Your task to perform on an android device: Add "sony triple a" to the cart on walmart.com Image 0: 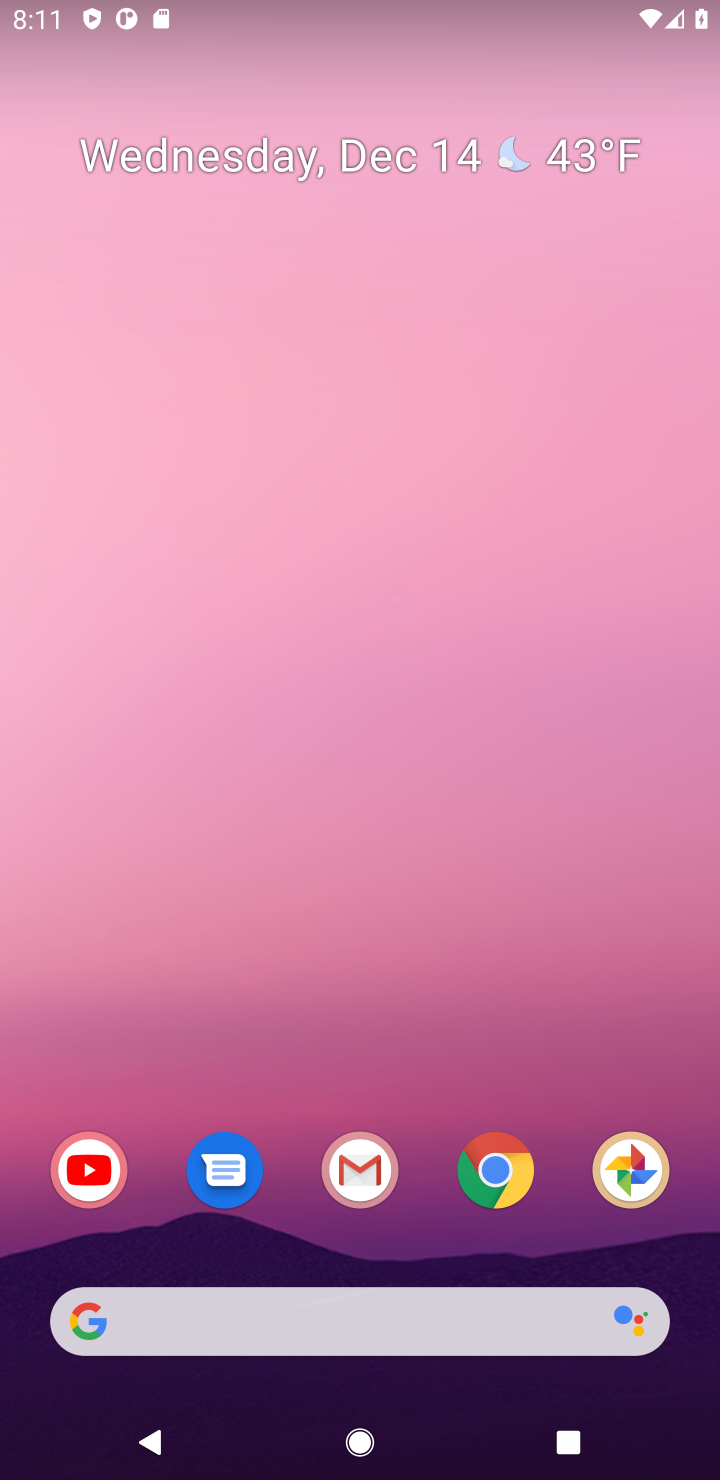
Step 0: click (505, 1178)
Your task to perform on an android device: Add "sony triple a" to the cart on walmart.com Image 1: 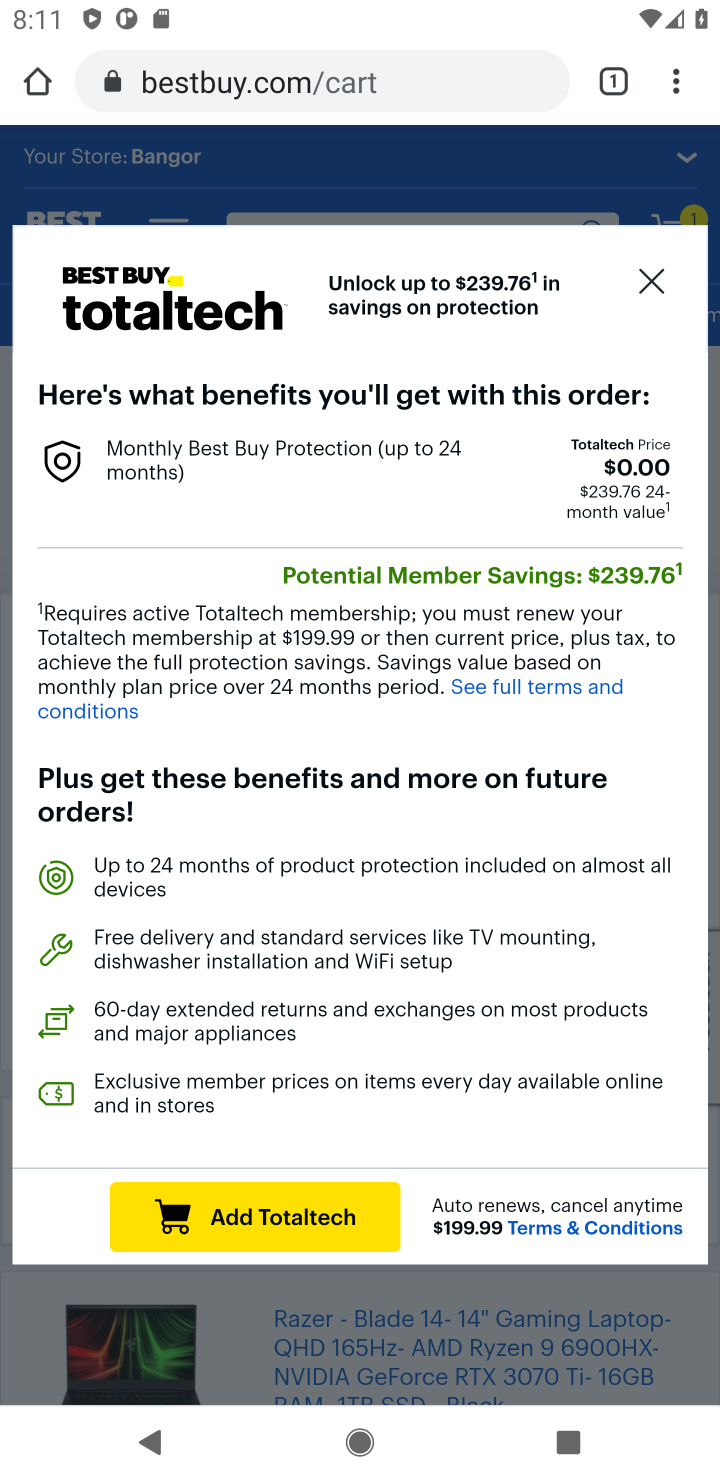
Step 1: click (322, 74)
Your task to perform on an android device: Add "sony triple a" to the cart on walmart.com Image 2: 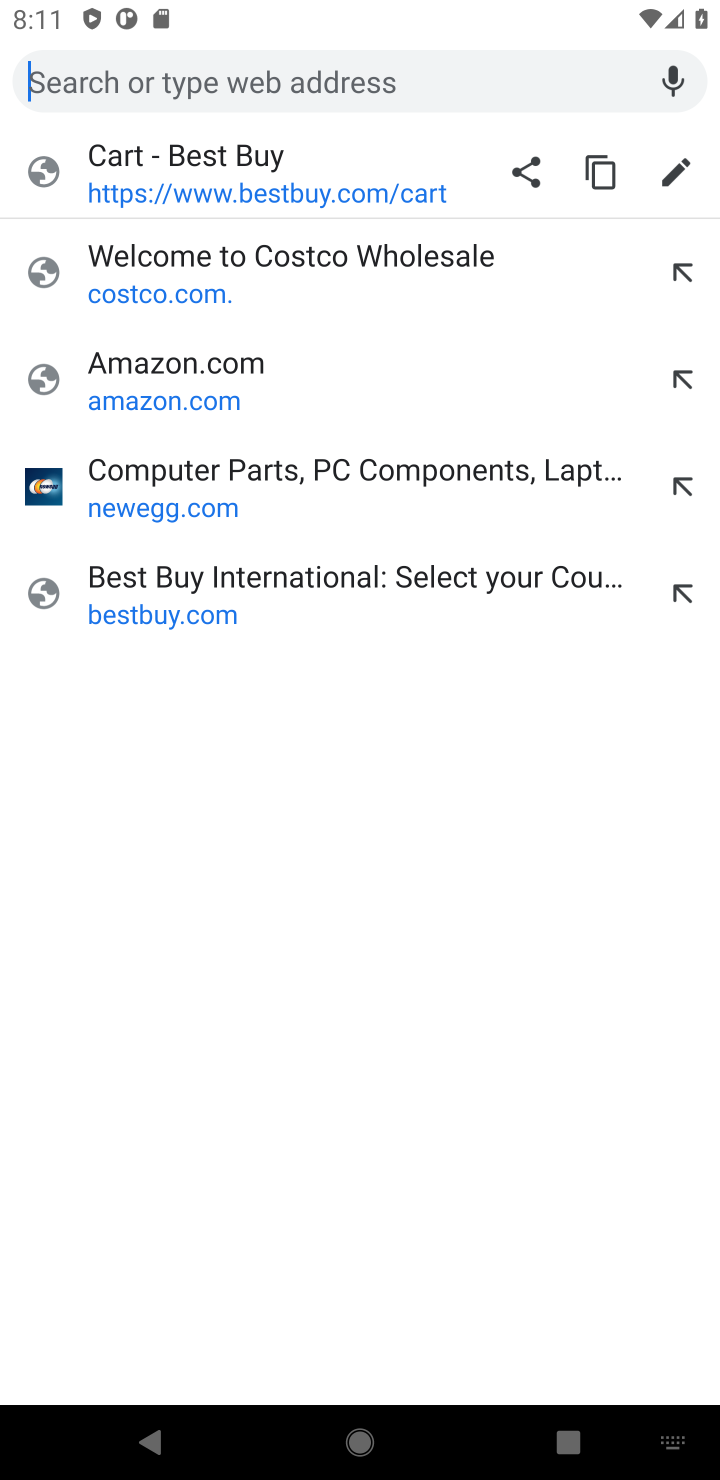
Step 2: type "WALMART"
Your task to perform on an android device: Add "sony triple a" to the cart on walmart.com Image 3: 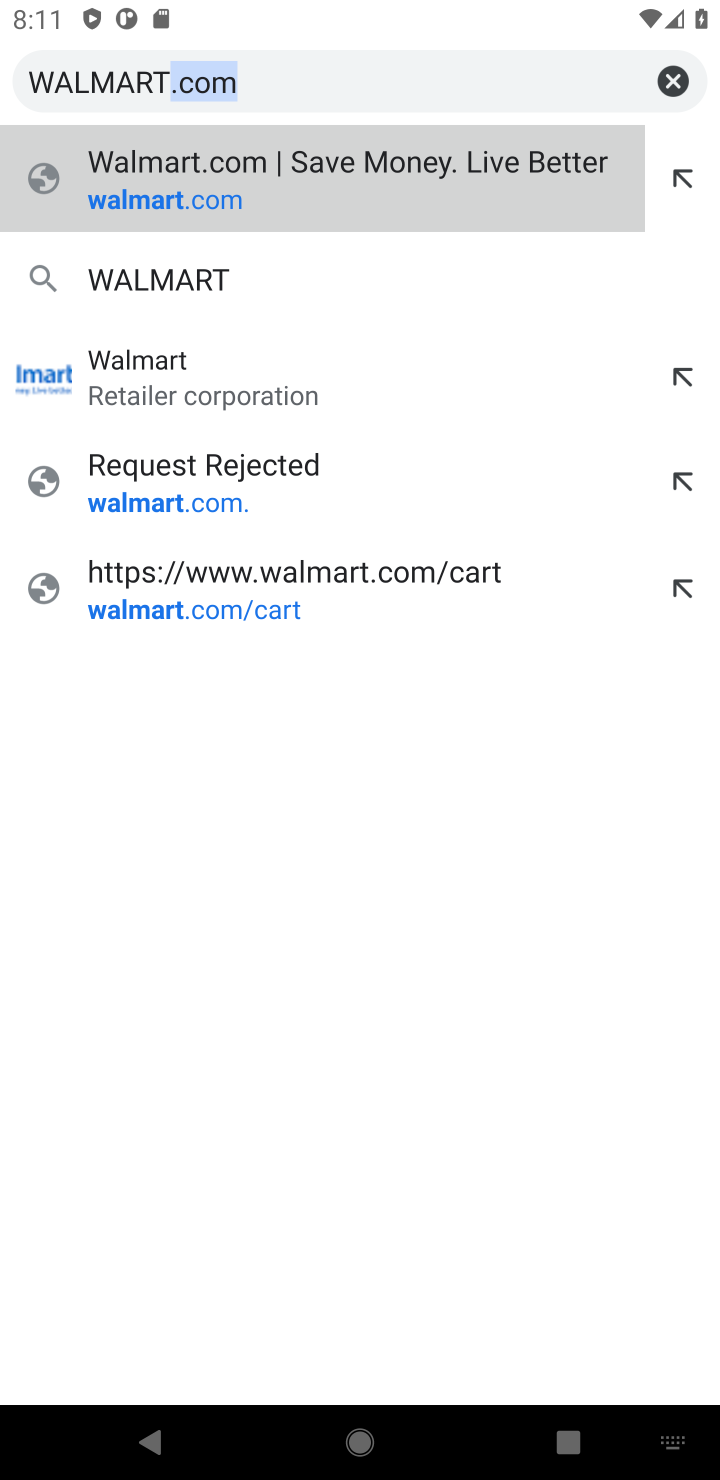
Step 3: click (218, 189)
Your task to perform on an android device: Add "sony triple a" to the cart on walmart.com Image 4: 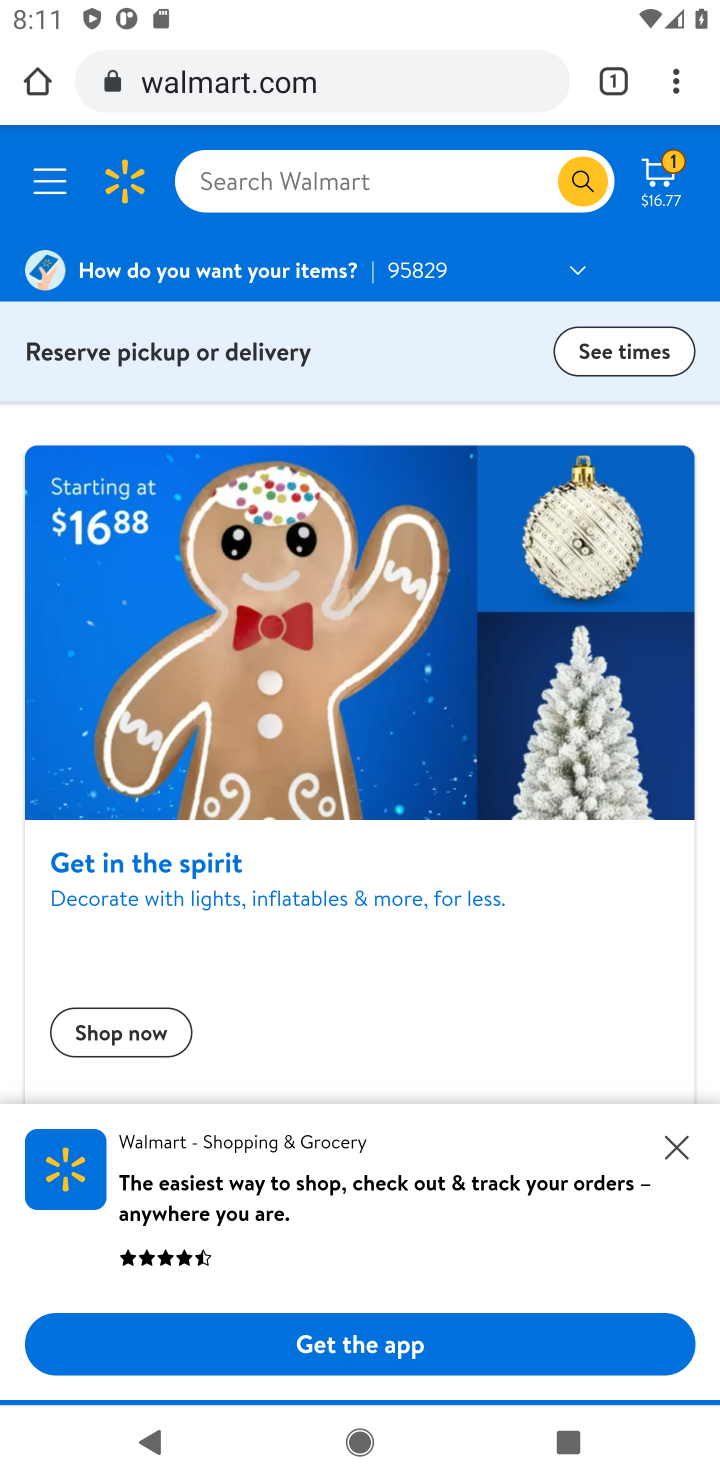
Step 4: click (458, 171)
Your task to perform on an android device: Add "sony triple a" to the cart on walmart.com Image 5: 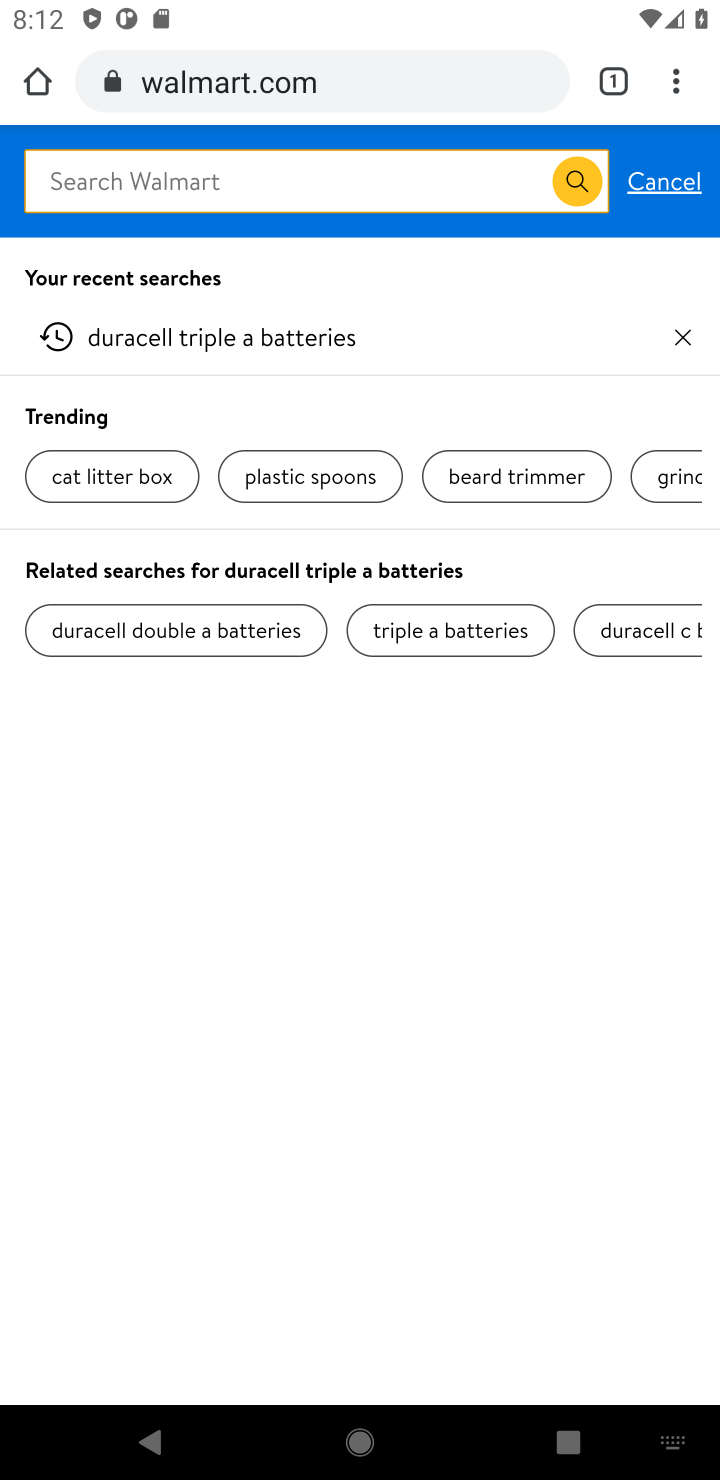
Step 5: type "SONY TRIPLE A"
Your task to perform on an android device: Add "sony triple a" to the cart on walmart.com Image 6: 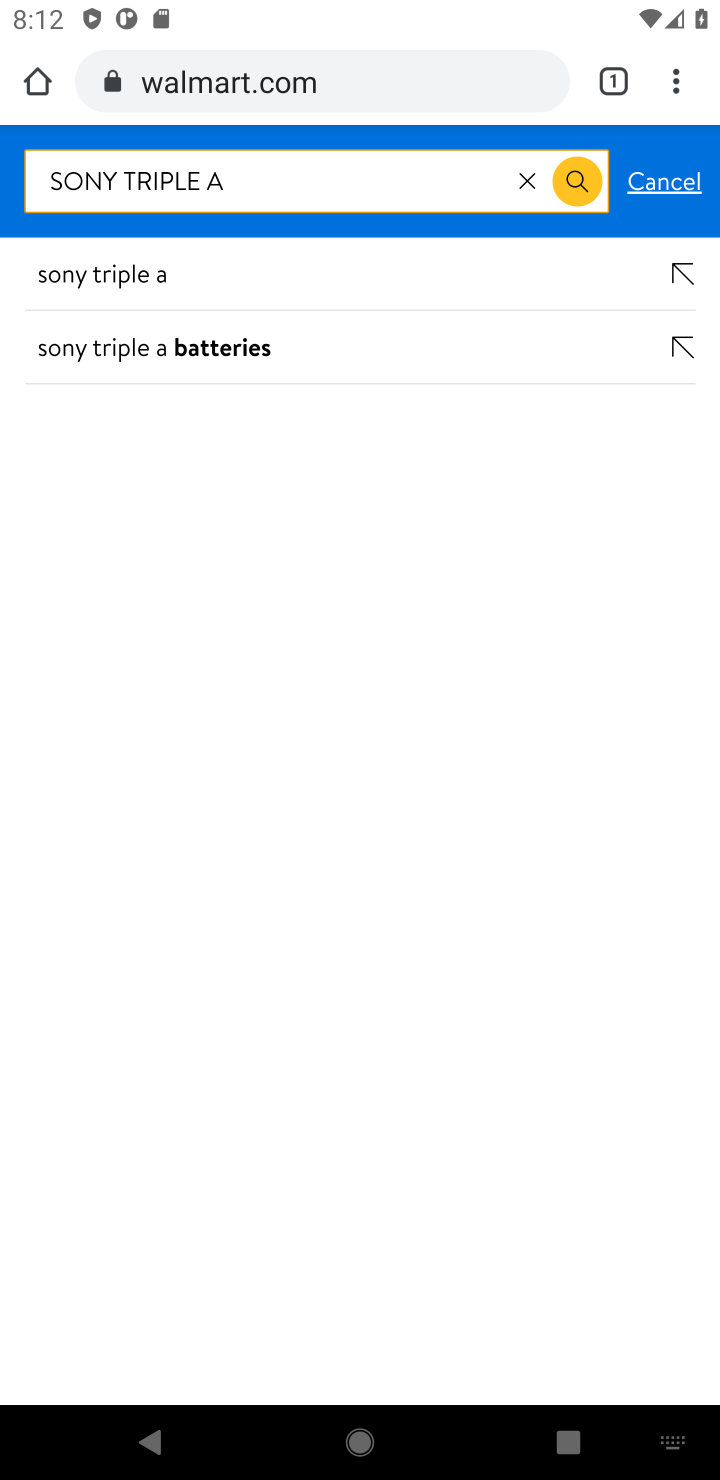
Step 6: click (141, 274)
Your task to perform on an android device: Add "sony triple a" to the cart on walmart.com Image 7: 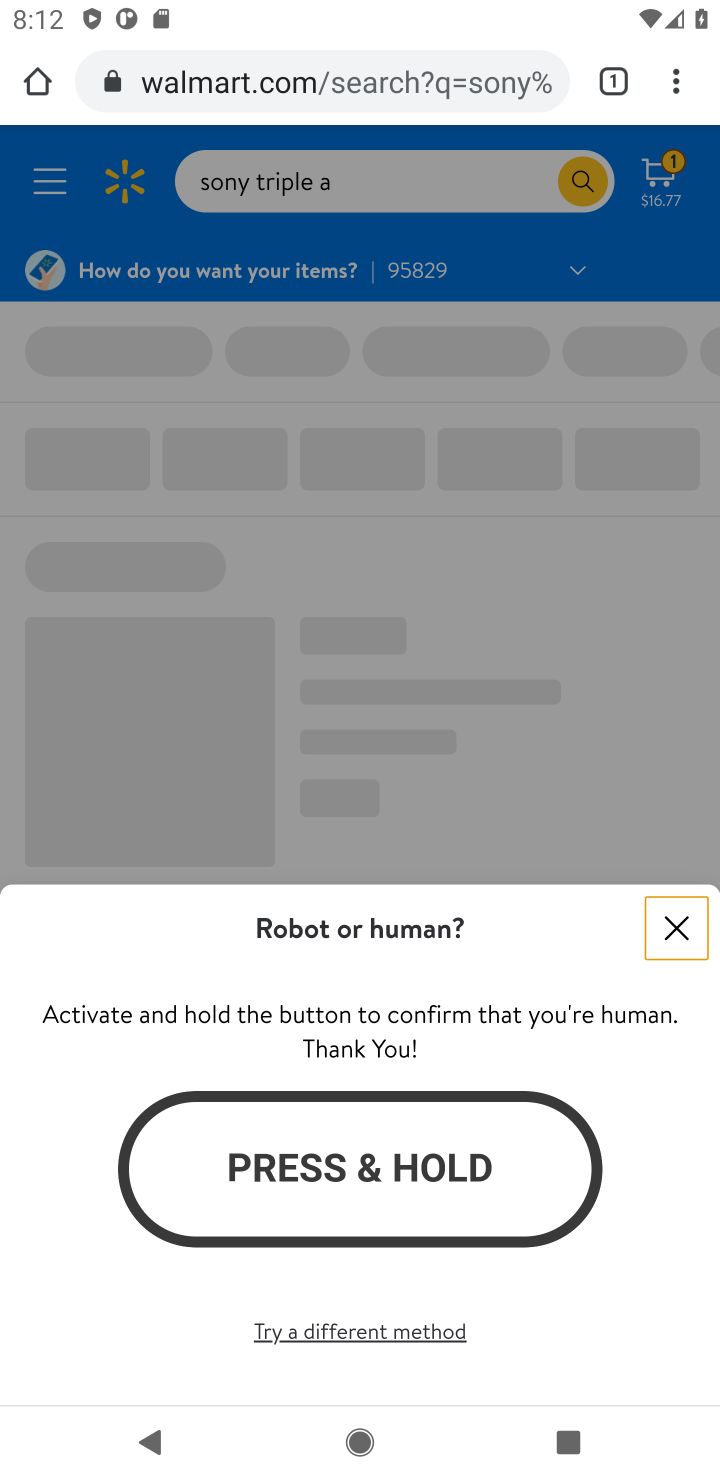
Step 7: click (681, 937)
Your task to perform on an android device: Add "sony triple a" to the cart on walmart.com Image 8: 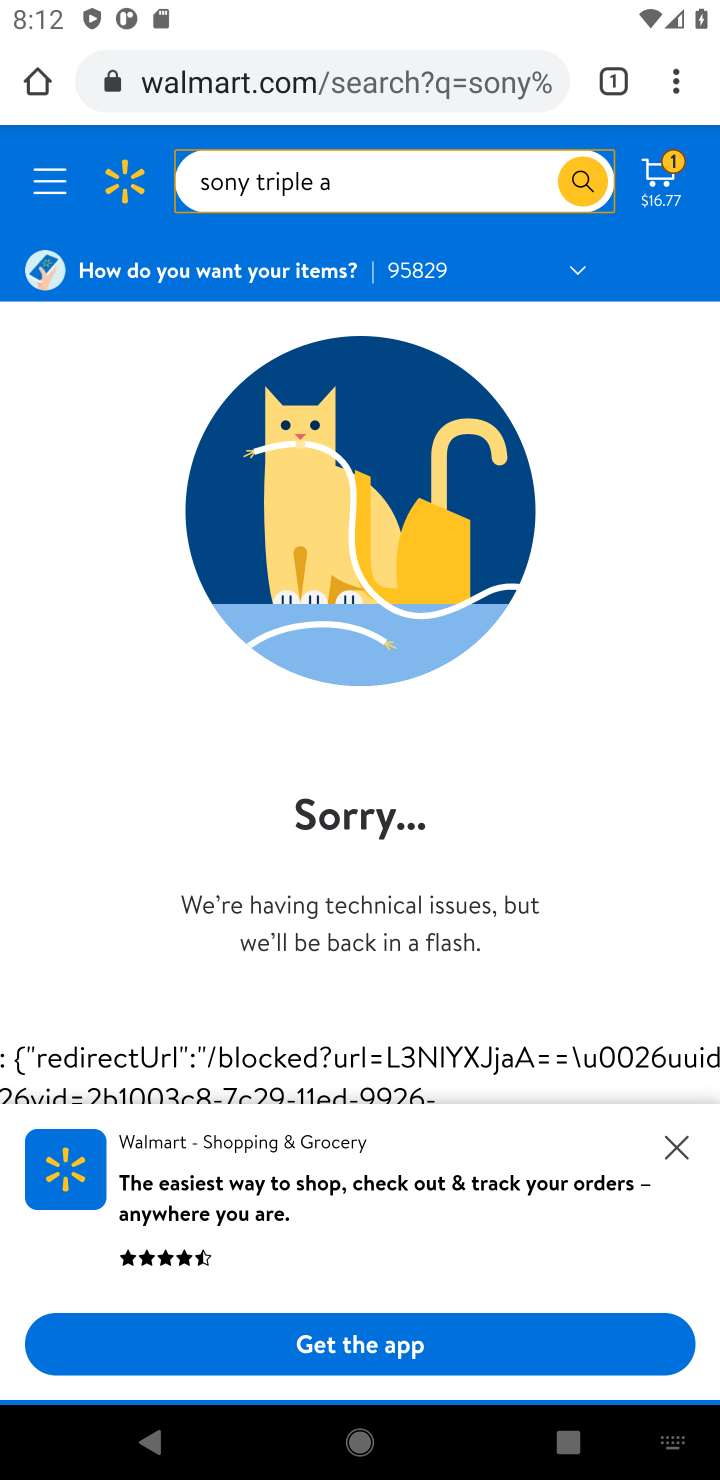
Step 8: click (683, 1140)
Your task to perform on an android device: Add "sony triple a" to the cart on walmart.com Image 9: 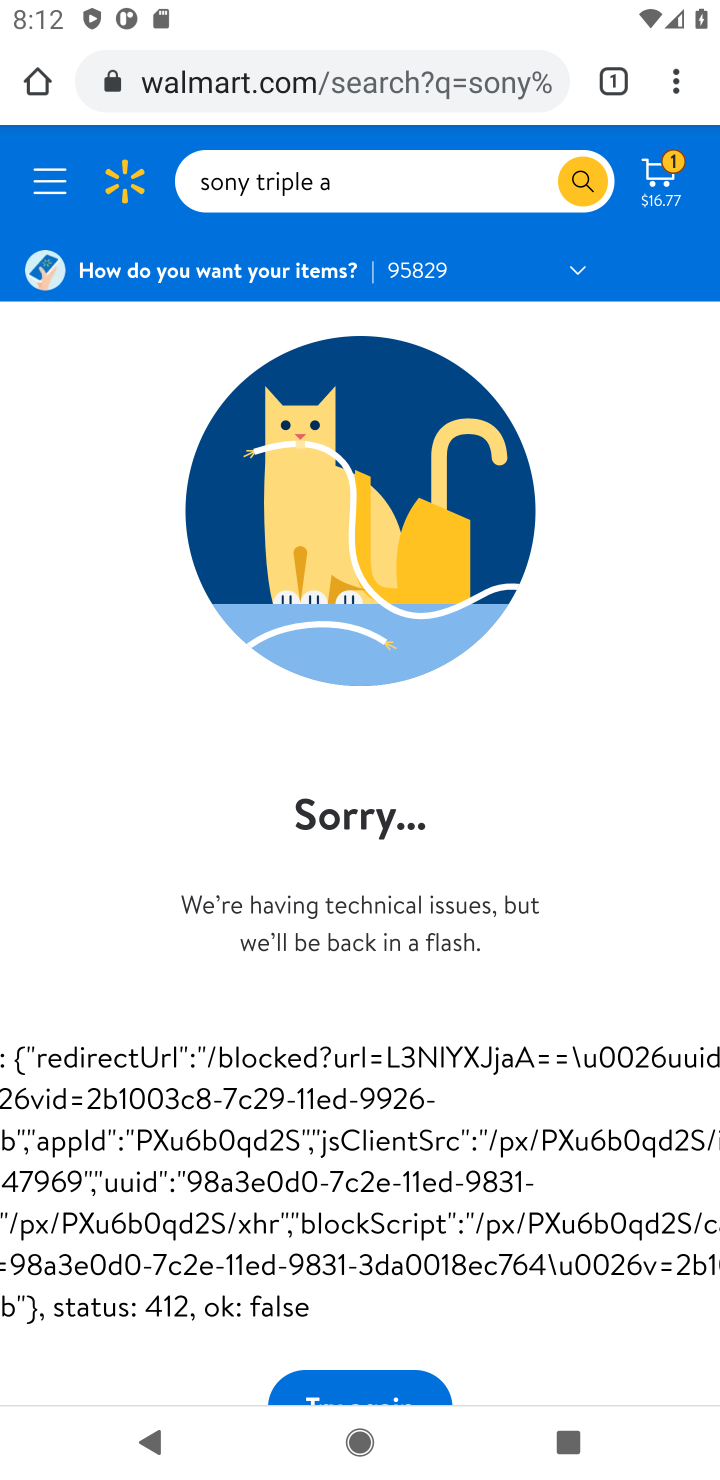
Step 9: task complete